Your task to perform on an android device: What's the weather going to be this weekend? Image 0: 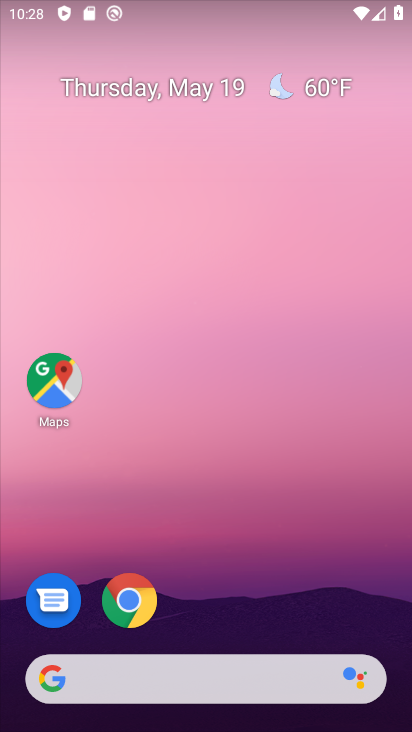
Step 0: click (261, 683)
Your task to perform on an android device: What's the weather going to be this weekend? Image 1: 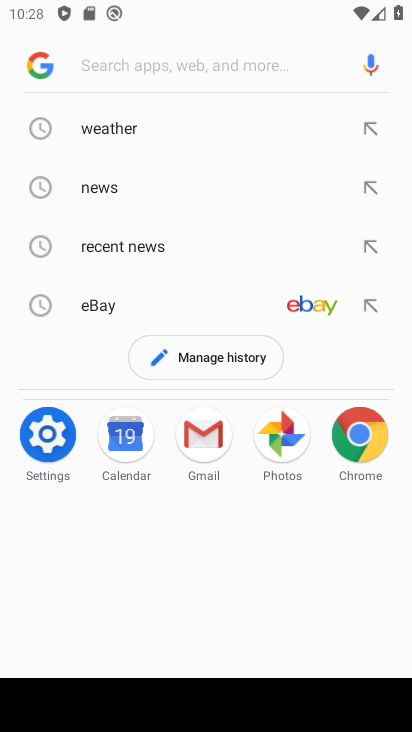
Step 1: click (126, 121)
Your task to perform on an android device: What's the weather going to be this weekend? Image 2: 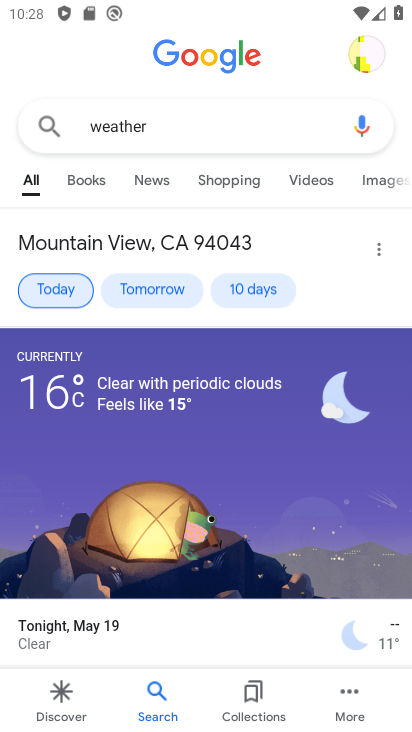
Step 2: click (263, 288)
Your task to perform on an android device: What's the weather going to be this weekend? Image 3: 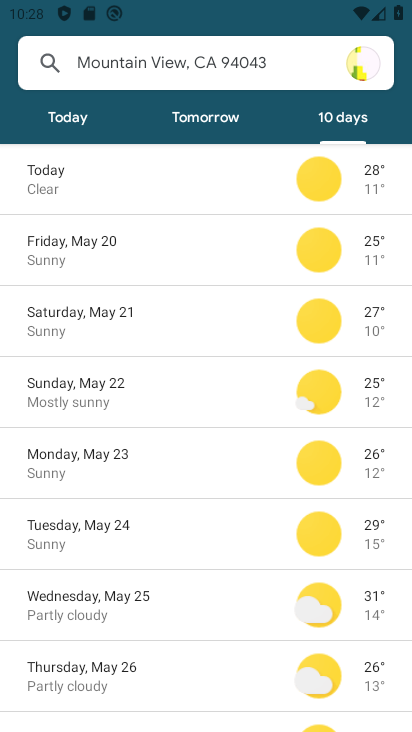
Step 3: click (178, 386)
Your task to perform on an android device: What's the weather going to be this weekend? Image 4: 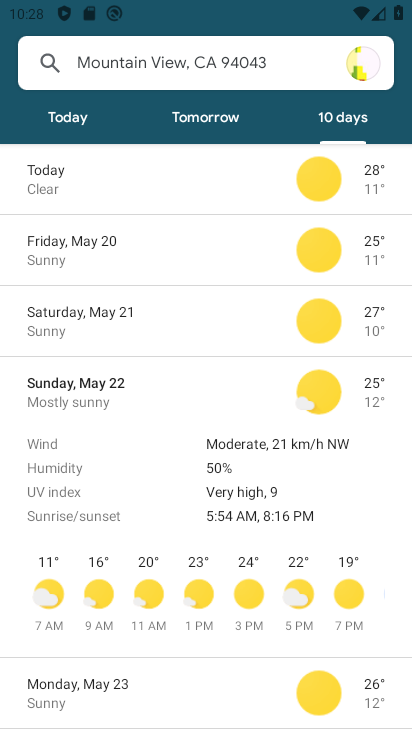
Step 4: task complete